Your task to perform on an android device: refresh tabs in the chrome app Image 0: 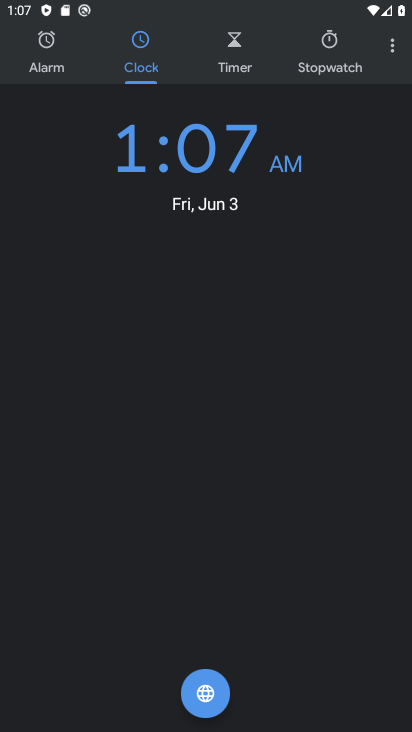
Step 0: press home button
Your task to perform on an android device: refresh tabs in the chrome app Image 1: 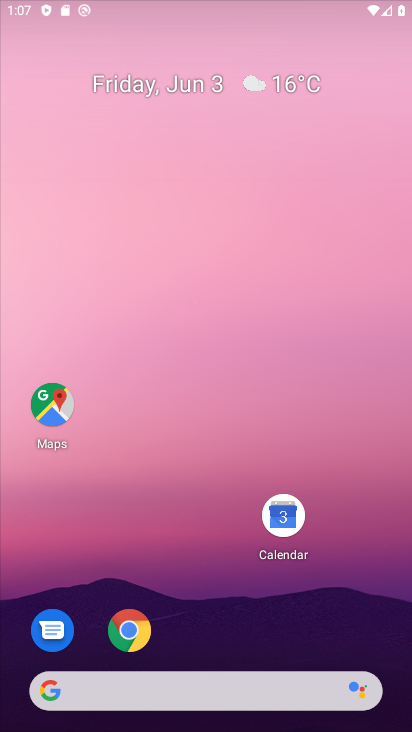
Step 1: drag from (264, 665) to (175, 160)
Your task to perform on an android device: refresh tabs in the chrome app Image 2: 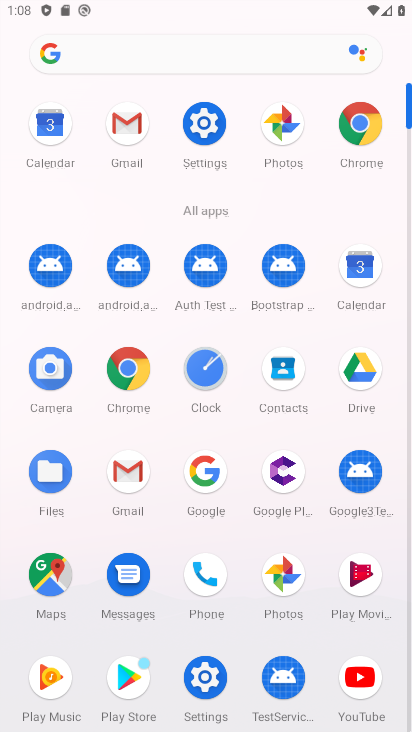
Step 2: click (133, 387)
Your task to perform on an android device: refresh tabs in the chrome app Image 3: 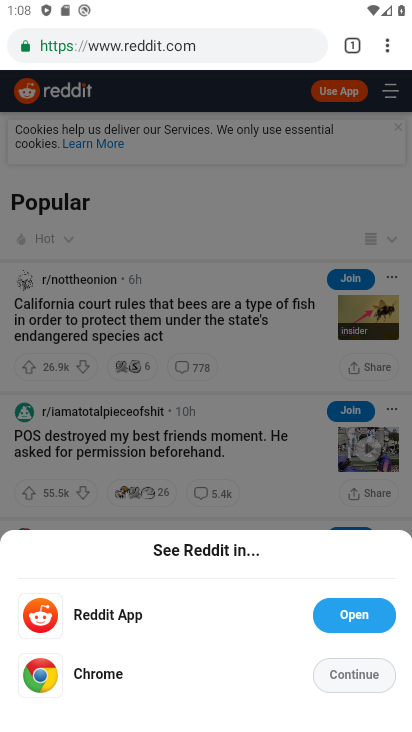
Step 3: click (390, 44)
Your task to perform on an android device: refresh tabs in the chrome app Image 4: 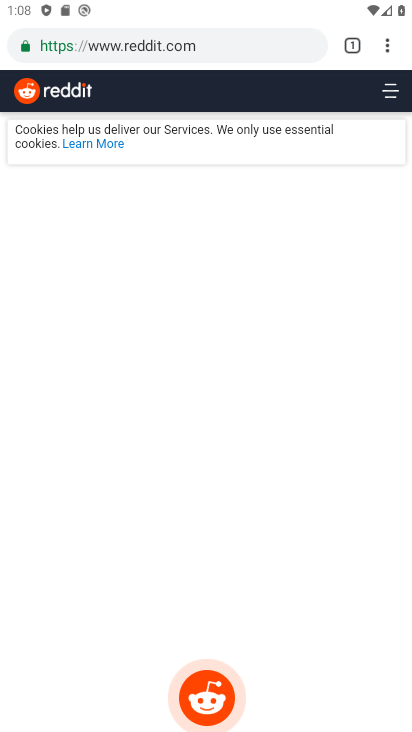
Step 4: click (387, 51)
Your task to perform on an android device: refresh tabs in the chrome app Image 5: 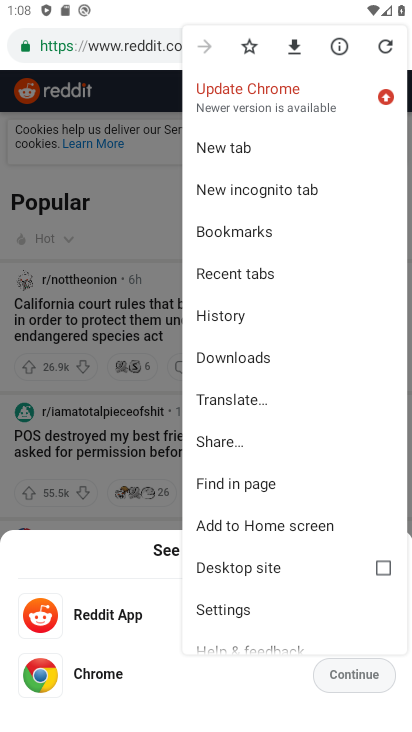
Step 5: click (280, 95)
Your task to perform on an android device: refresh tabs in the chrome app Image 6: 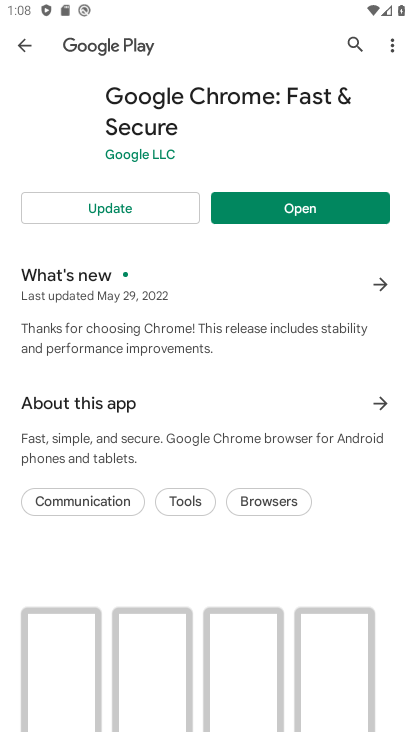
Step 6: press back button
Your task to perform on an android device: refresh tabs in the chrome app Image 7: 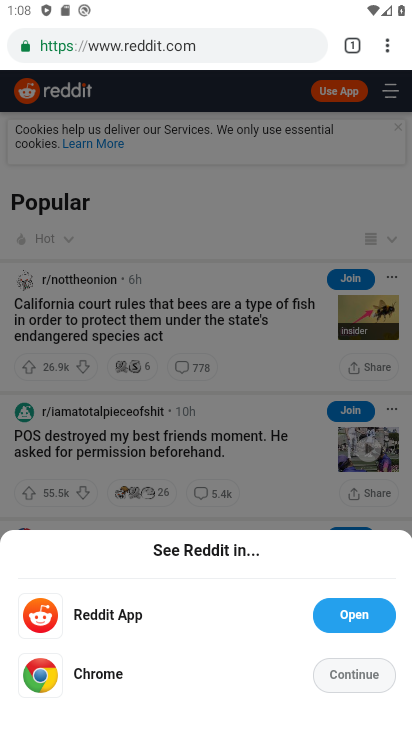
Step 7: click (388, 48)
Your task to perform on an android device: refresh tabs in the chrome app Image 8: 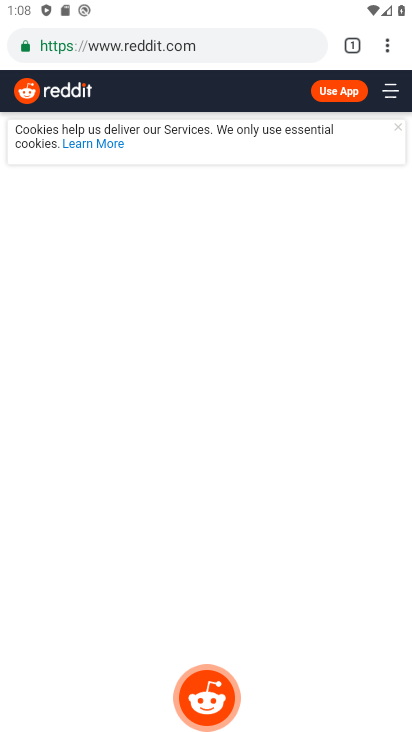
Step 8: task complete